Your task to perform on an android device: Search for seafood restaurants on Google Maps Image 0: 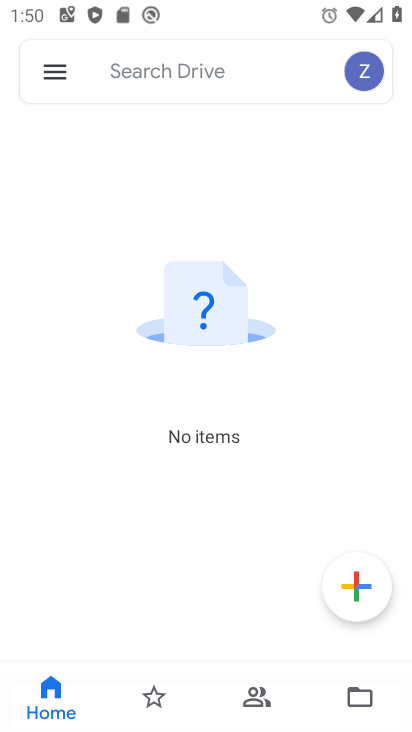
Step 0: press home button
Your task to perform on an android device: Search for seafood restaurants on Google Maps Image 1: 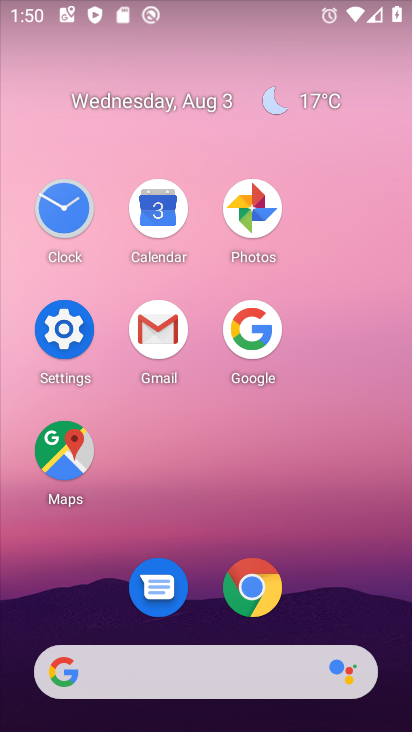
Step 1: click (70, 476)
Your task to perform on an android device: Search for seafood restaurants on Google Maps Image 2: 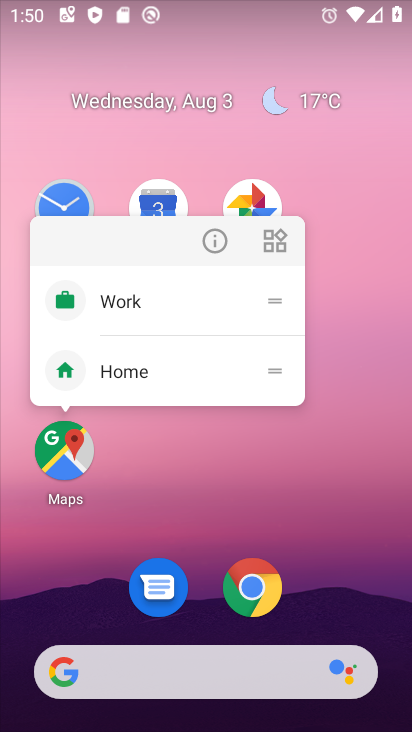
Step 2: click (75, 451)
Your task to perform on an android device: Search for seafood restaurants on Google Maps Image 3: 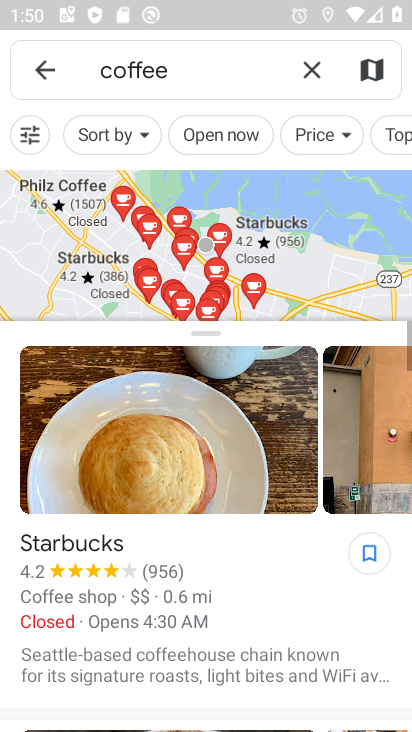
Step 3: click (329, 77)
Your task to perform on an android device: Search for seafood restaurants on Google Maps Image 4: 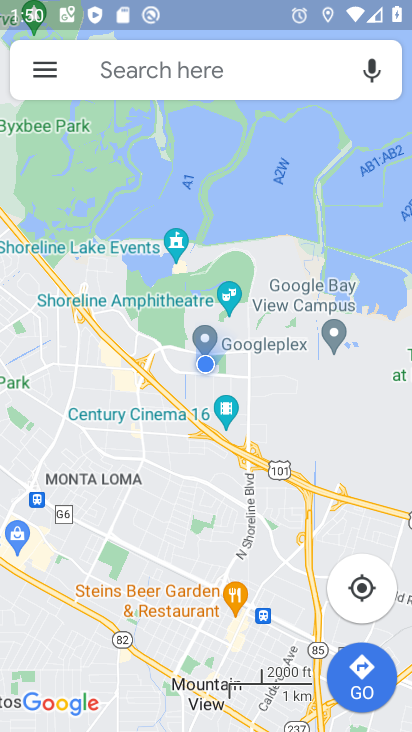
Step 4: click (202, 84)
Your task to perform on an android device: Search for seafood restaurants on Google Maps Image 5: 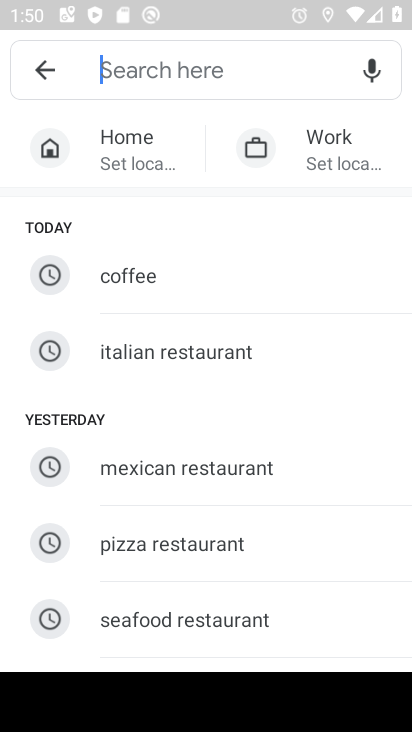
Step 5: click (245, 610)
Your task to perform on an android device: Search for seafood restaurants on Google Maps Image 6: 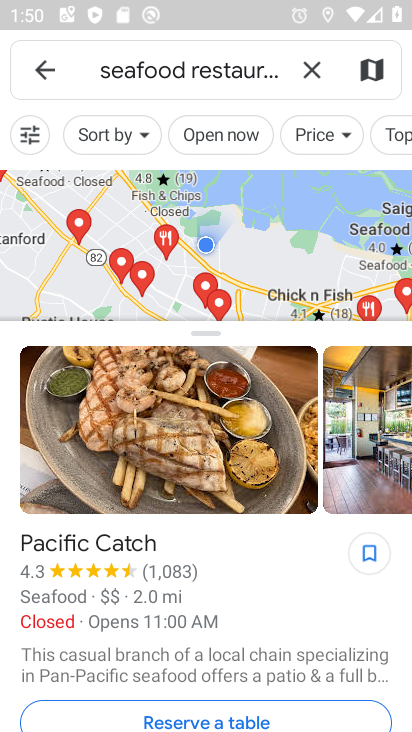
Step 6: task complete